Your task to perform on an android device: set default search engine in the chrome app Image 0: 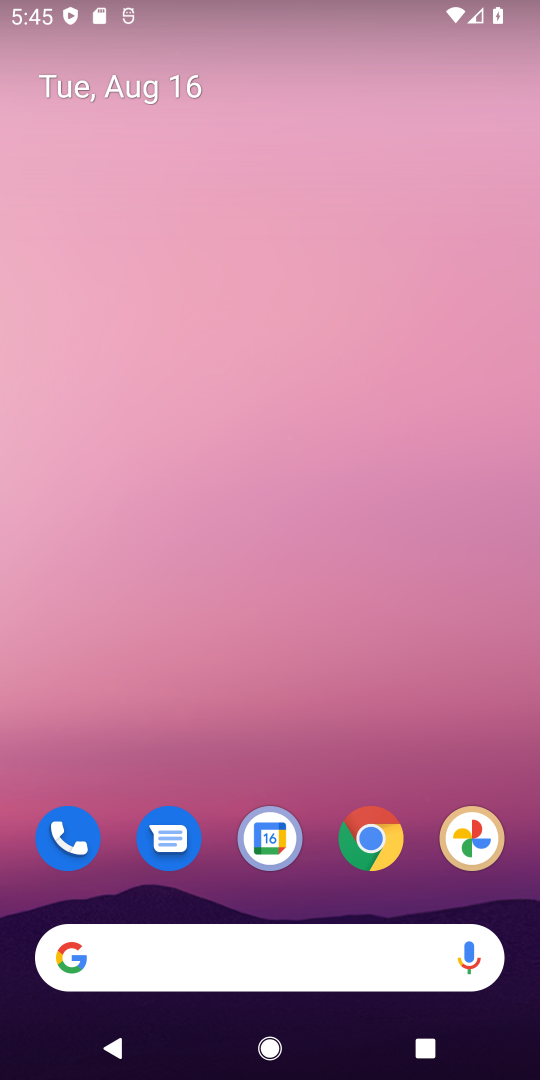
Step 0: click (374, 840)
Your task to perform on an android device: set default search engine in the chrome app Image 1: 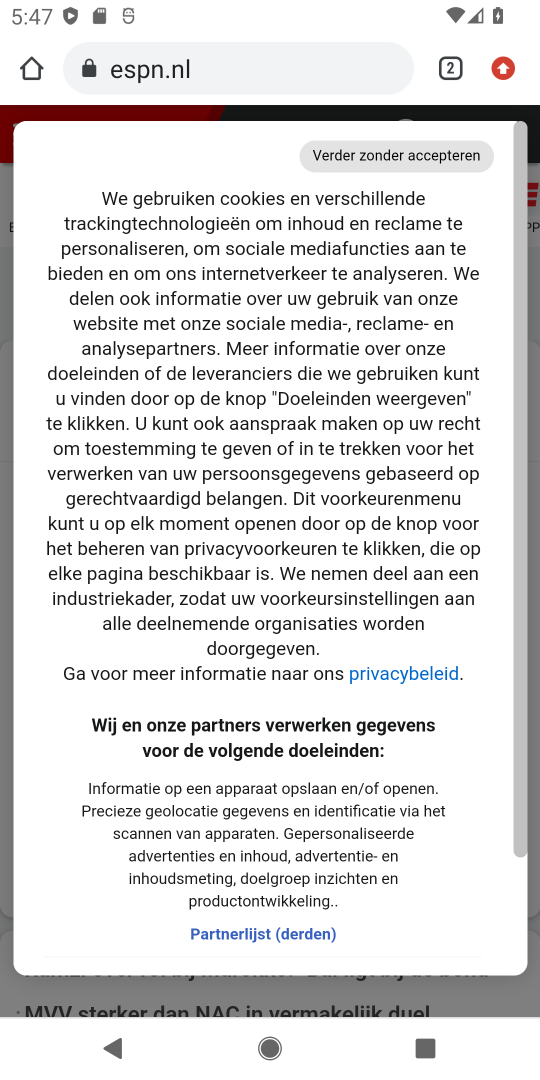
Step 1: drag from (504, 61) to (297, 796)
Your task to perform on an android device: set default search engine in the chrome app Image 2: 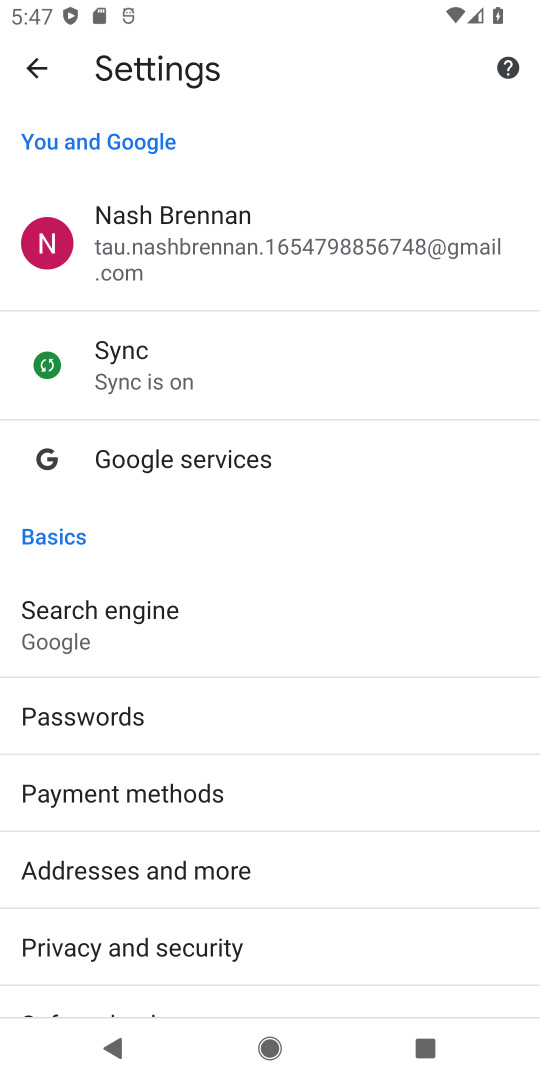
Step 2: click (110, 610)
Your task to perform on an android device: set default search engine in the chrome app Image 3: 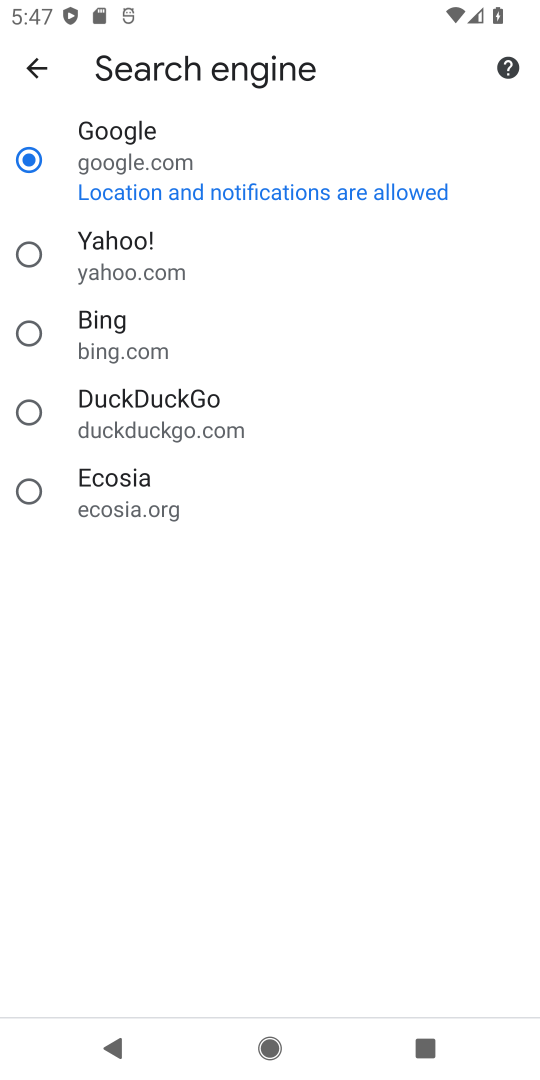
Step 3: click (19, 253)
Your task to perform on an android device: set default search engine in the chrome app Image 4: 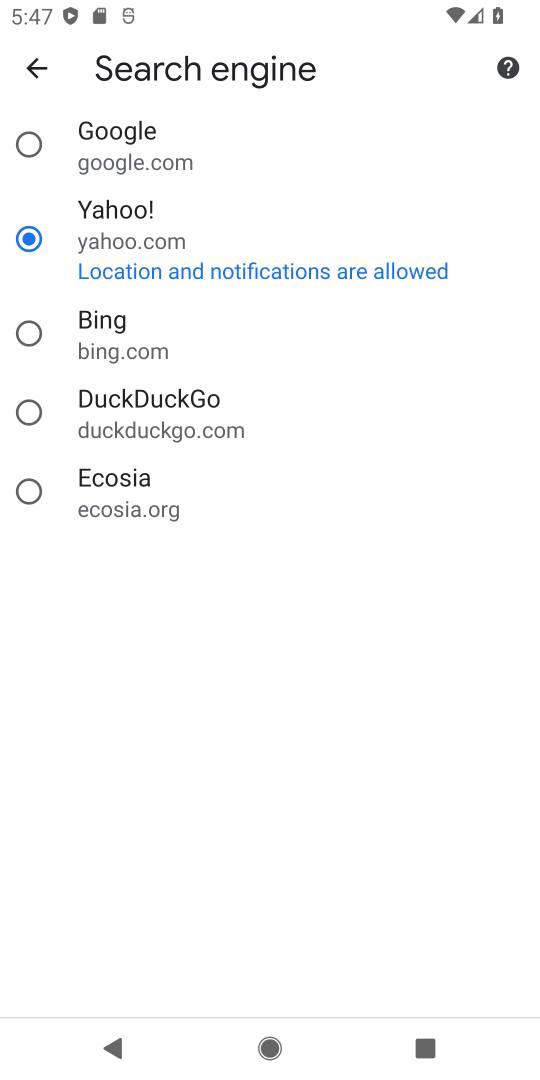
Step 4: task complete